Your task to perform on an android device: change text size in settings app Image 0: 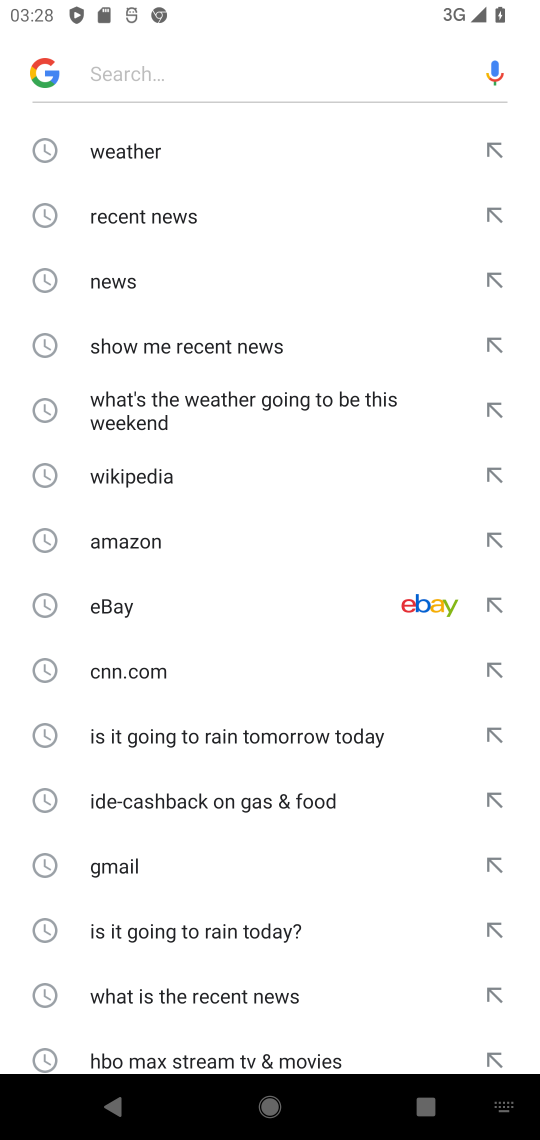
Step 0: press home button
Your task to perform on an android device: change text size in settings app Image 1: 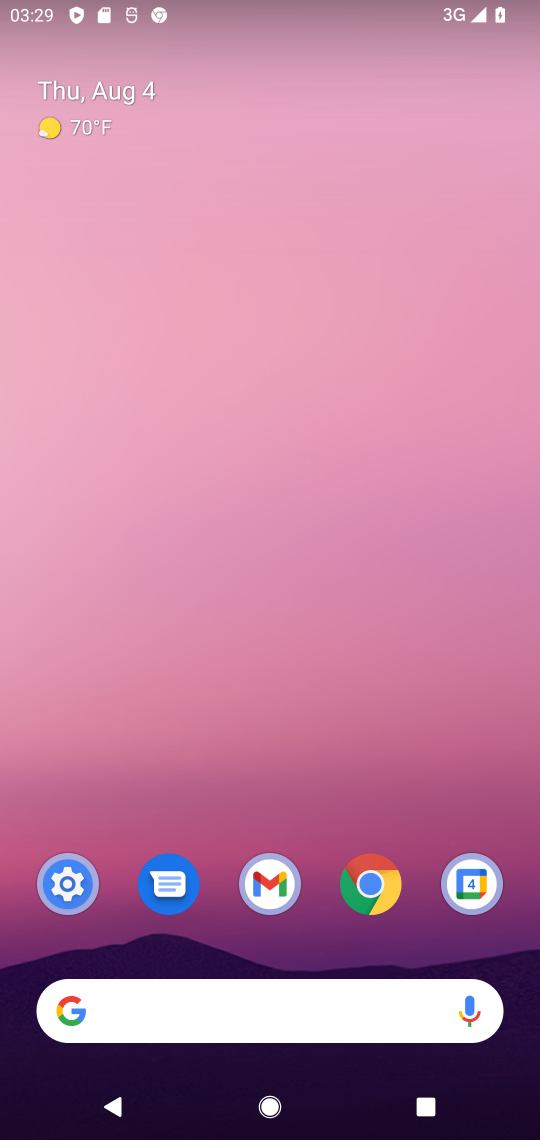
Step 1: drag from (311, 822) to (358, 261)
Your task to perform on an android device: change text size in settings app Image 2: 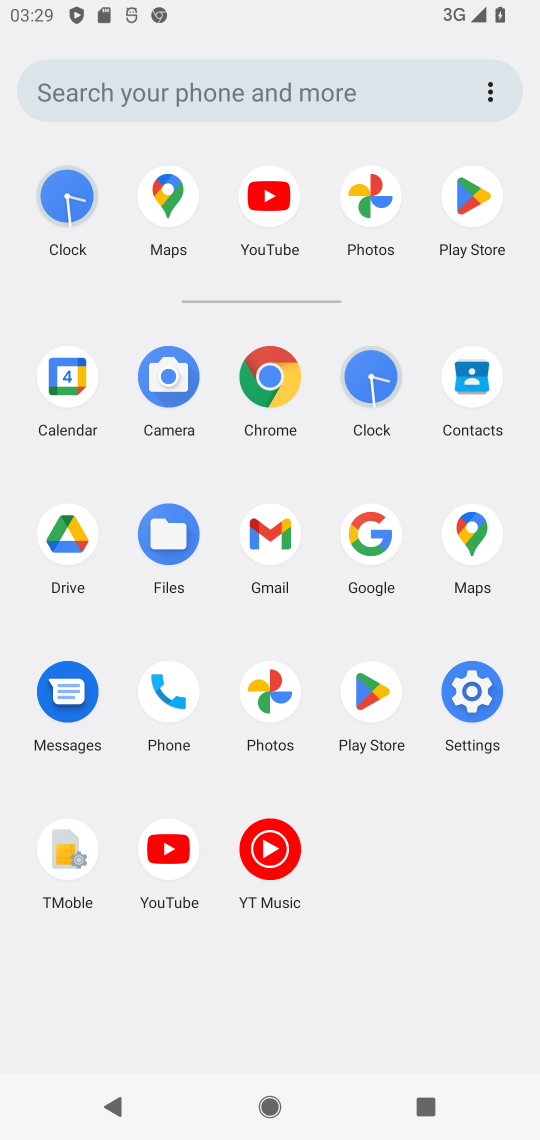
Step 2: click (470, 696)
Your task to perform on an android device: change text size in settings app Image 3: 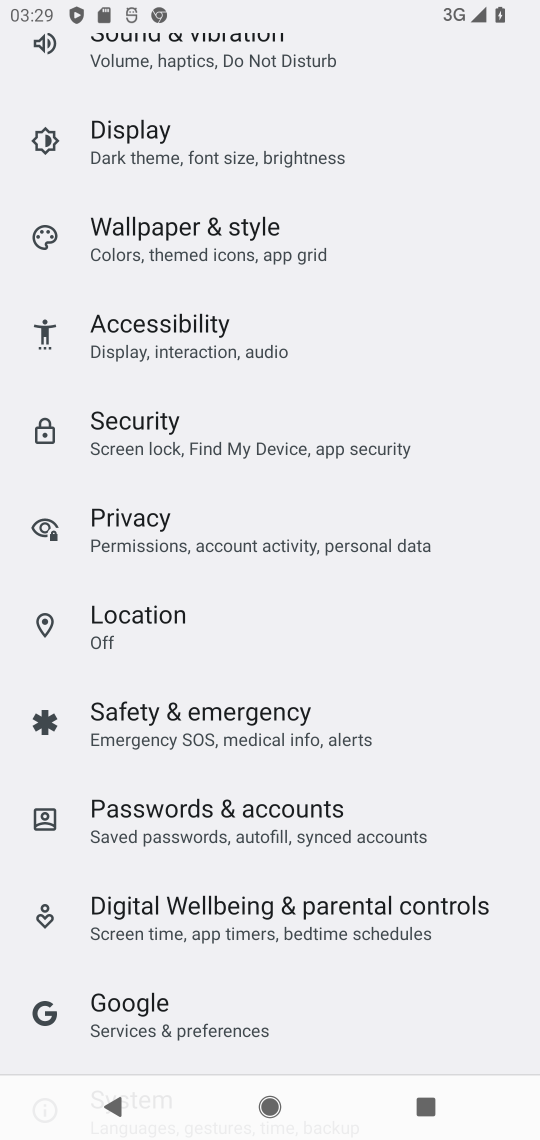
Step 3: drag from (410, 1000) to (456, 776)
Your task to perform on an android device: change text size in settings app Image 4: 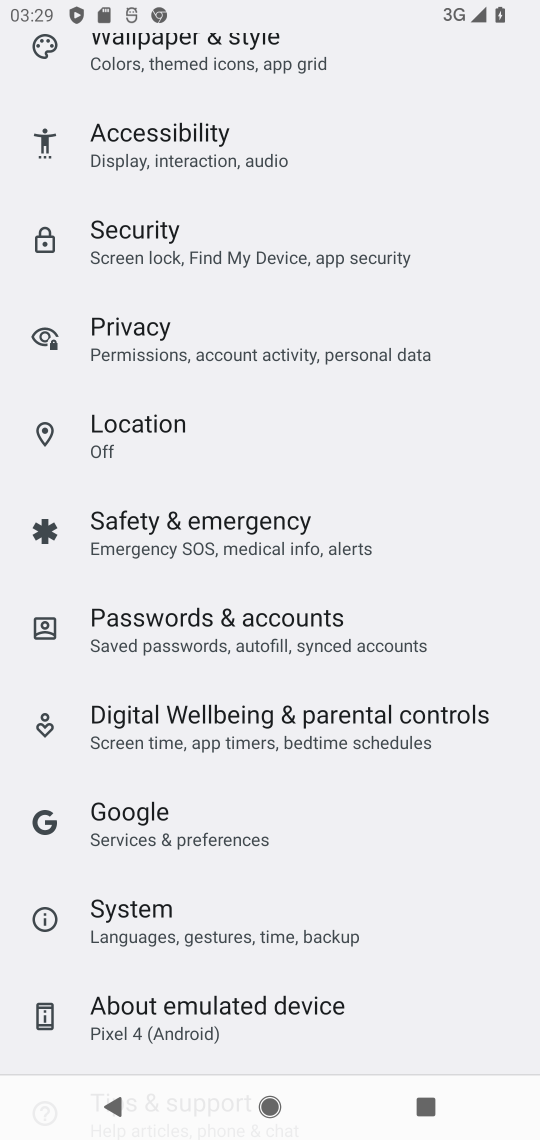
Step 4: drag from (429, 955) to (474, 690)
Your task to perform on an android device: change text size in settings app Image 5: 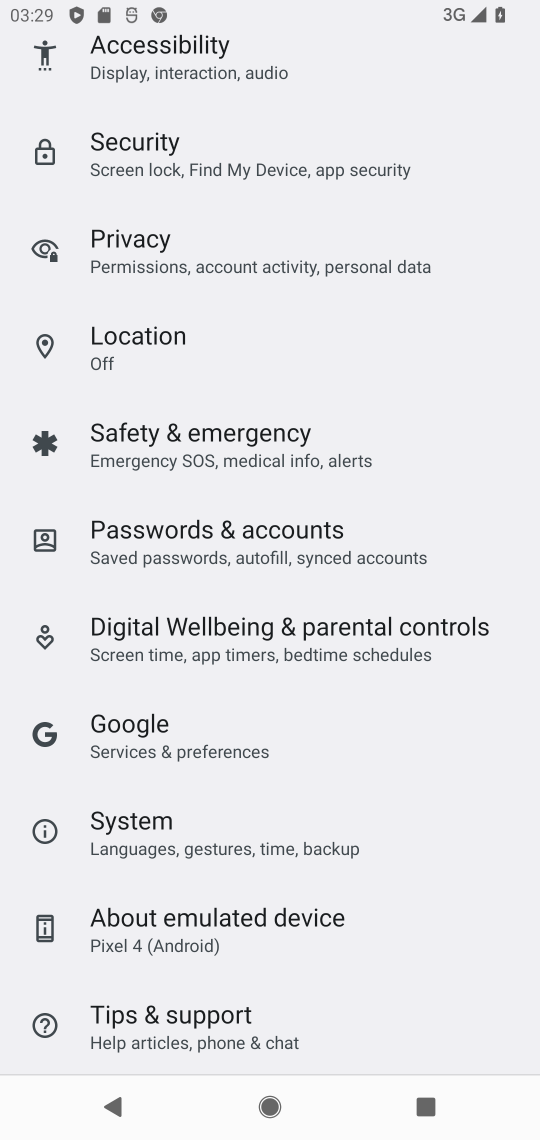
Step 5: drag from (458, 392) to (466, 586)
Your task to perform on an android device: change text size in settings app Image 6: 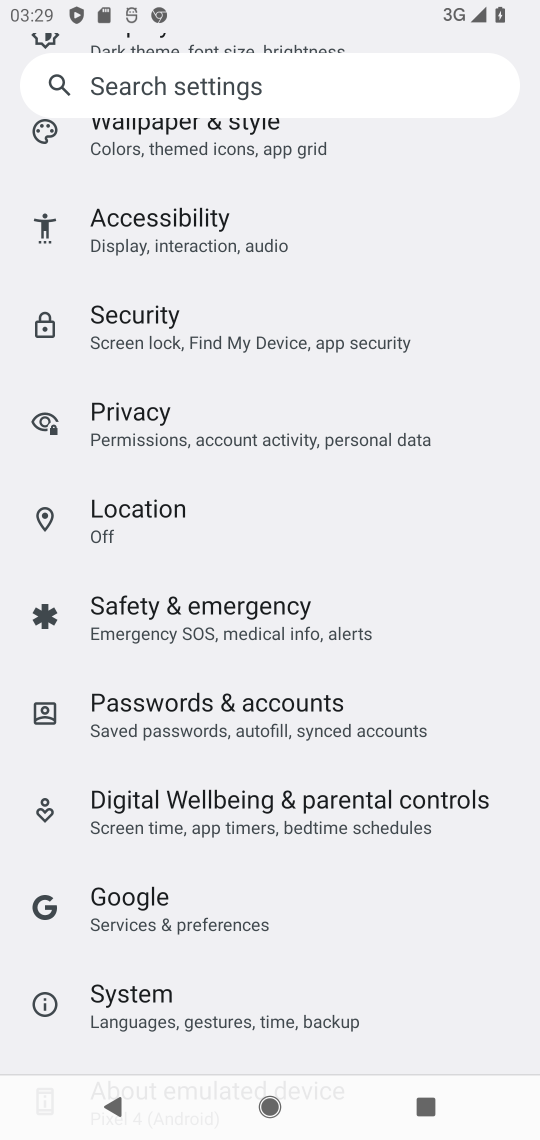
Step 6: drag from (470, 359) to (475, 585)
Your task to perform on an android device: change text size in settings app Image 7: 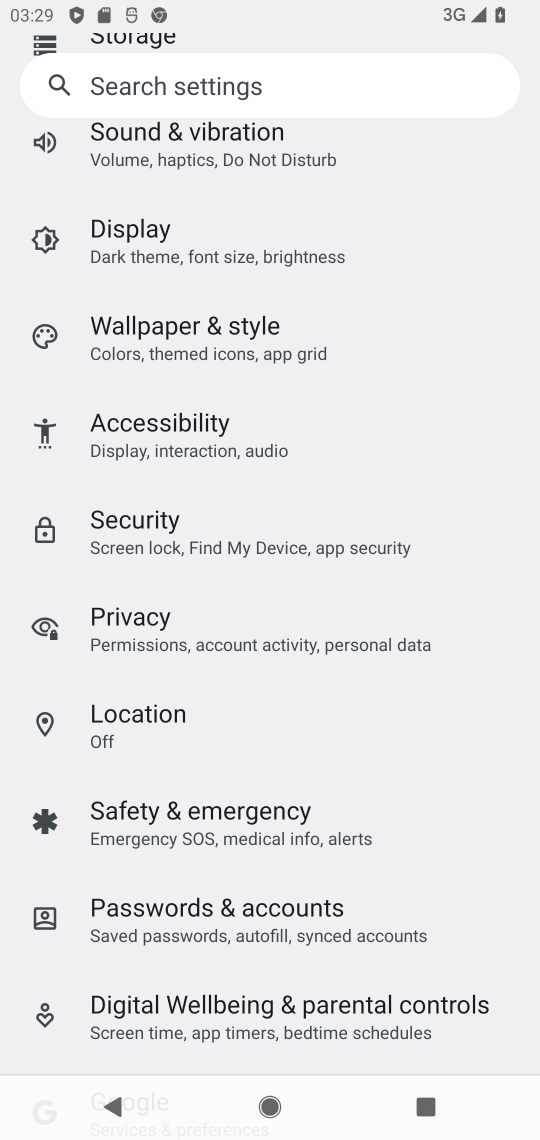
Step 7: drag from (473, 362) to (486, 608)
Your task to perform on an android device: change text size in settings app Image 8: 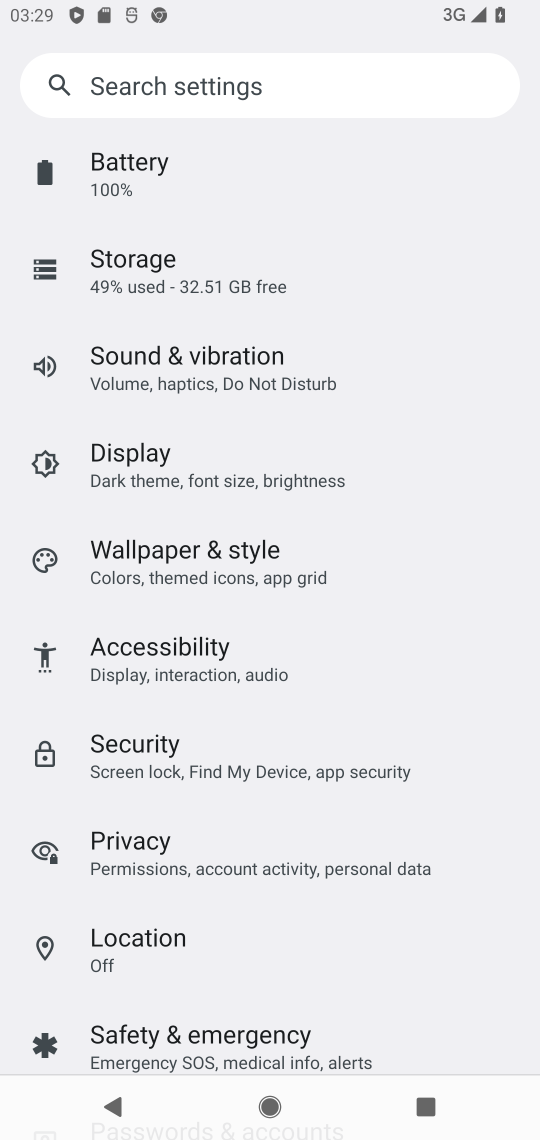
Step 8: drag from (443, 268) to (443, 707)
Your task to perform on an android device: change text size in settings app Image 9: 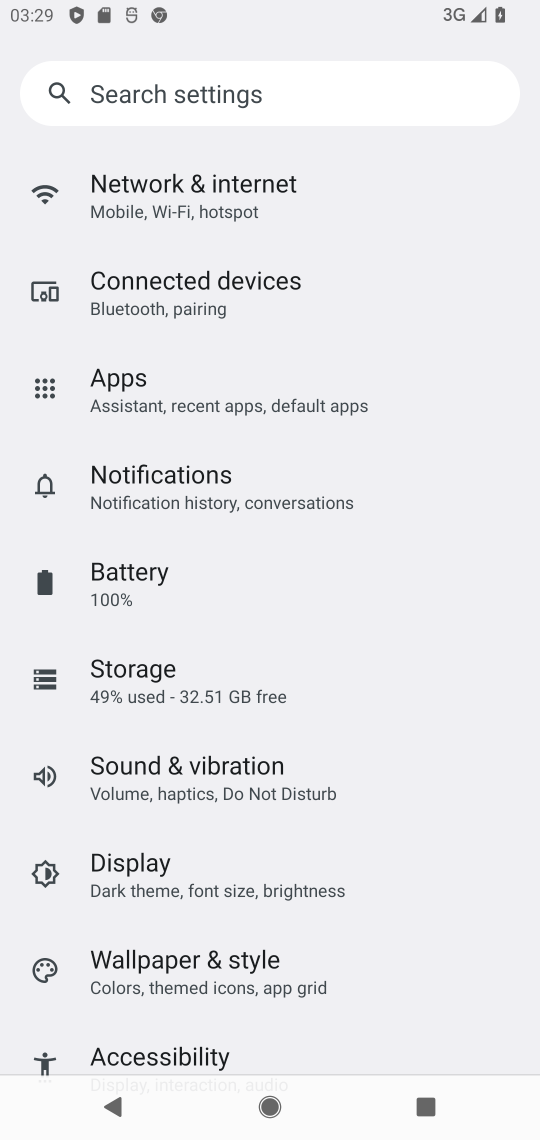
Step 9: click (355, 880)
Your task to perform on an android device: change text size in settings app Image 10: 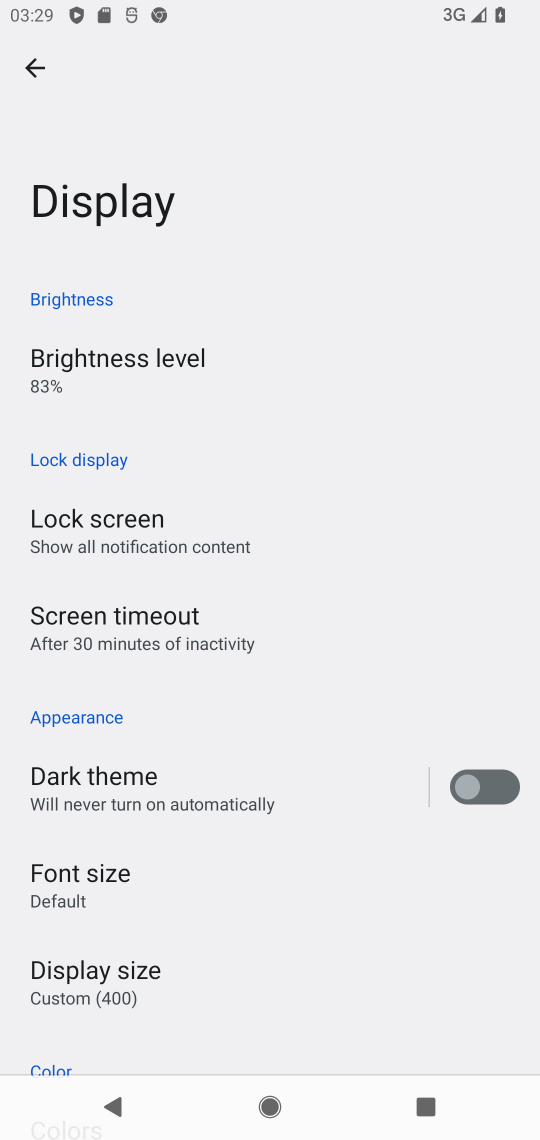
Step 10: click (134, 883)
Your task to perform on an android device: change text size in settings app Image 11: 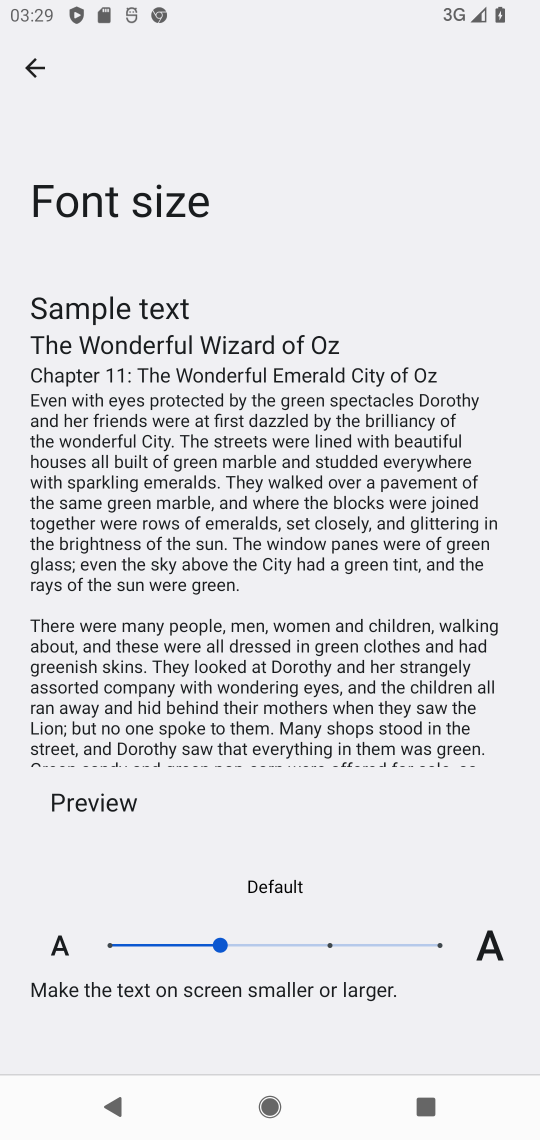
Step 11: click (437, 947)
Your task to perform on an android device: change text size in settings app Image 12: 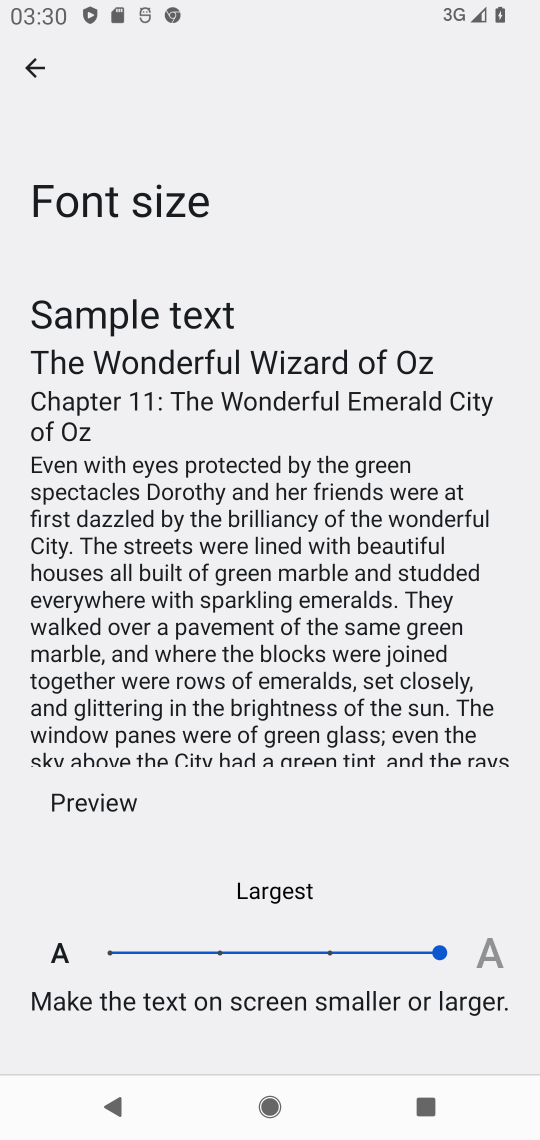
Step 12: task complete